Your task to perform on an android device: check battery use Image 0: 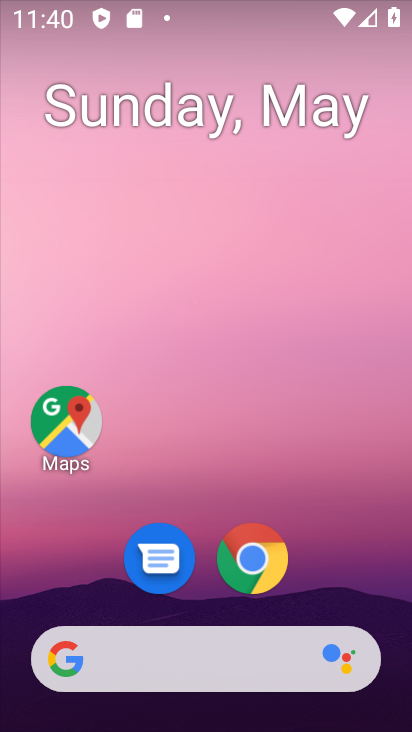
Step 0: drag from (373, 578) to (368, 113)
Your task to perform on an android device: check battery use Image 1: 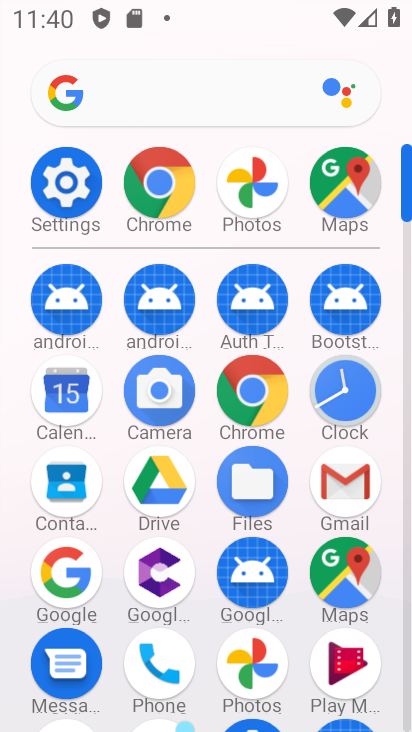
Step 1: click (75, 188)
Your task to perform on an android device: check battery use Image 2: 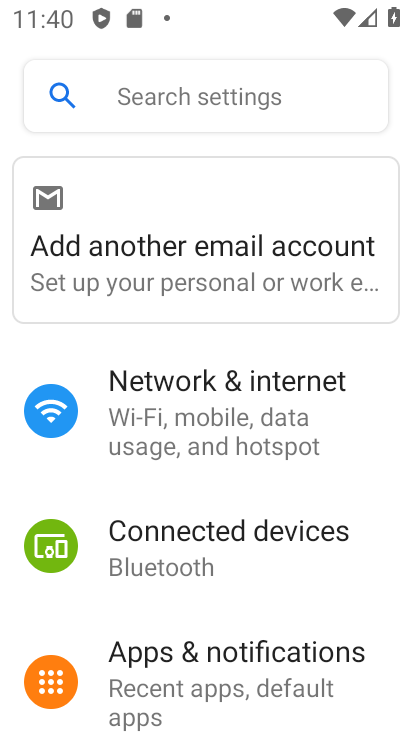
Step 2: drag from (364, 614) to (381, 305)
Your task to perform on an android device: check battery use Image 3: 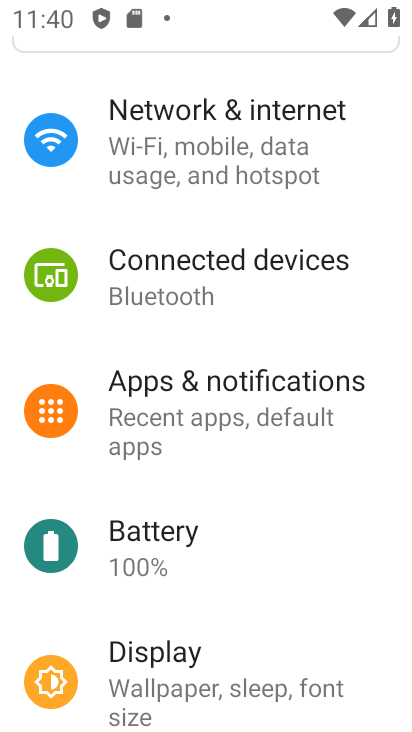
Step 3: click (184, 572)
Your task to perform on an android device: check battery use Image 4: 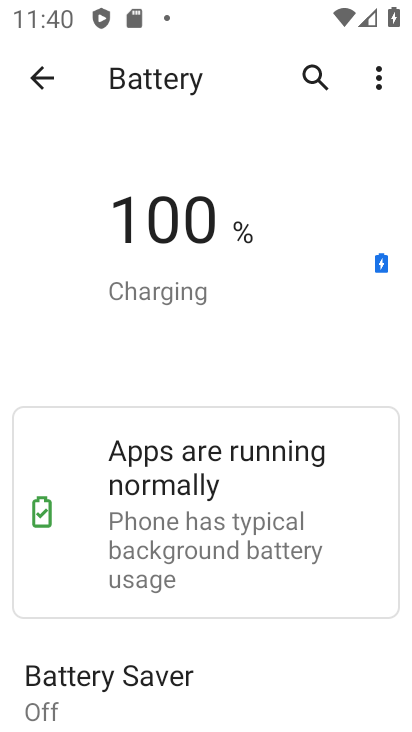
Step 4: drag from (292, 648) to (292, 438)
Your task to perform on an android device: check battery use Image 5: 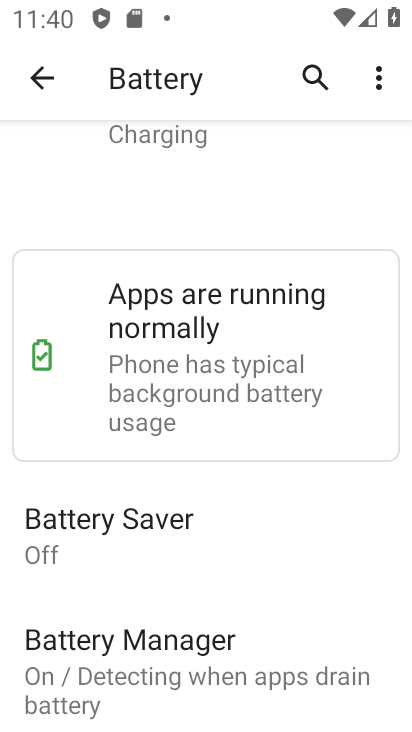
Step 5: click (378, 87)
Your task to perform on an android device: check battery use Image 6: 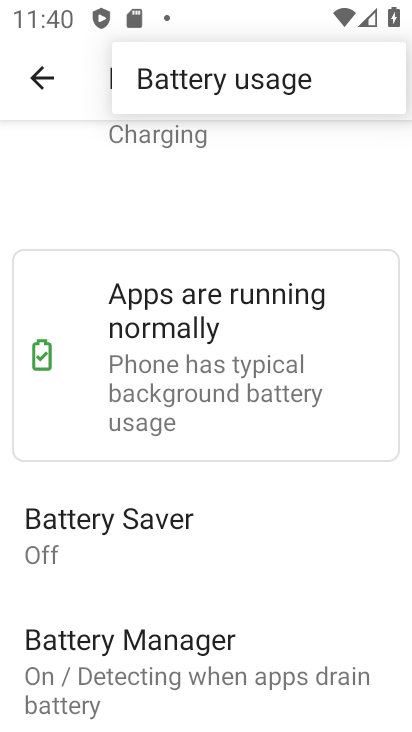
Step 6: click (266, 86)
Your task to perform on an android device: check battery use Image 7: 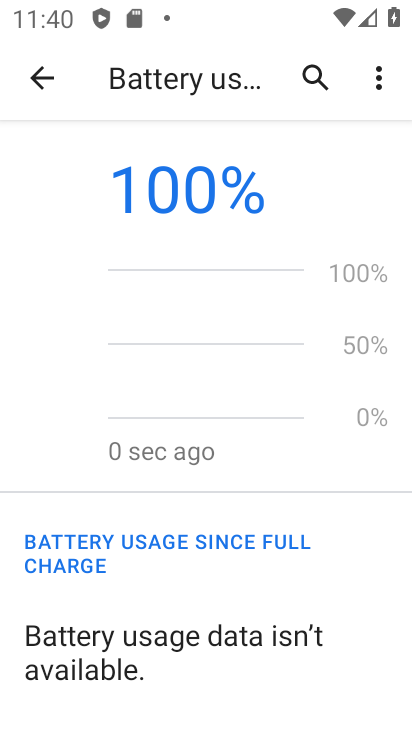
Step 7: task complete